Your task to perform on an android device: Is it going to rain today? Image 0: 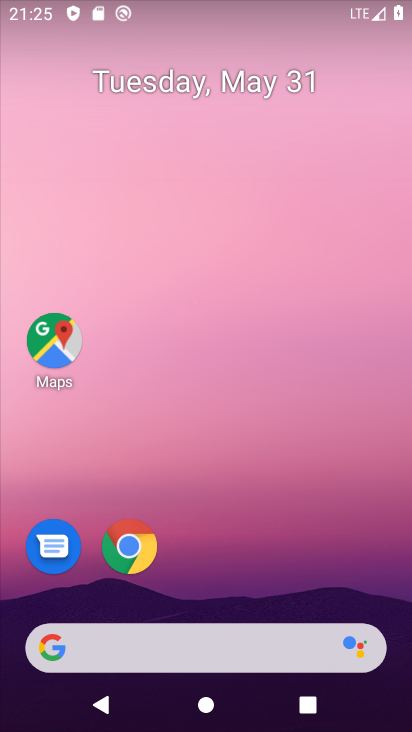
Step 0: drag from (4, 288) to (399, 269)
Your task to perform on an android device: Is it going to rain today? Image 1: 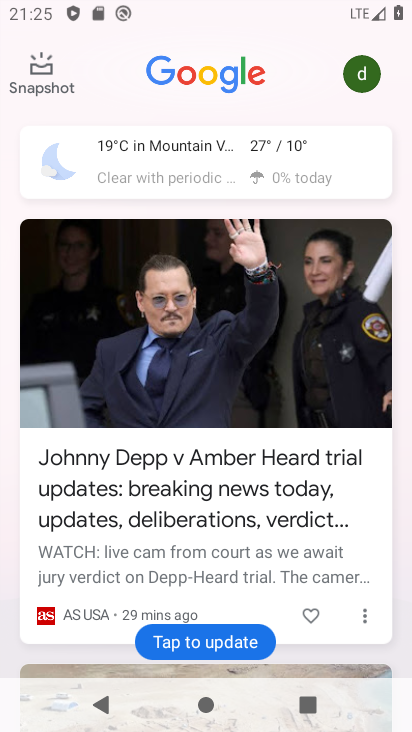
Step 1: click (271, 143)
Your task to perform on an android device: Is it going to rain today? Image 2: 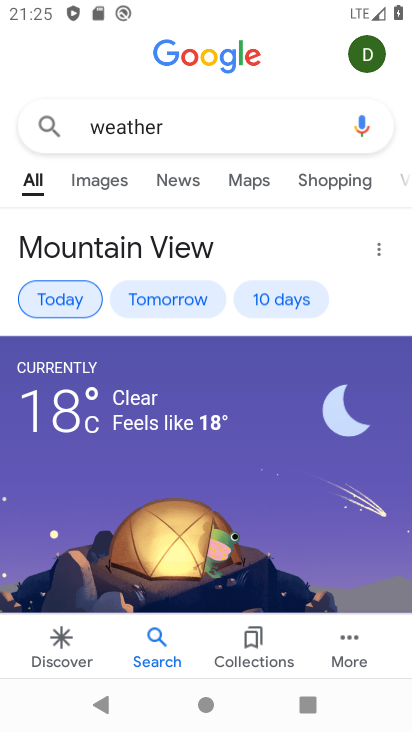
Step 2: click (75, 299)
Your task to perform on an android device: Is it going to rain today? Image 3: 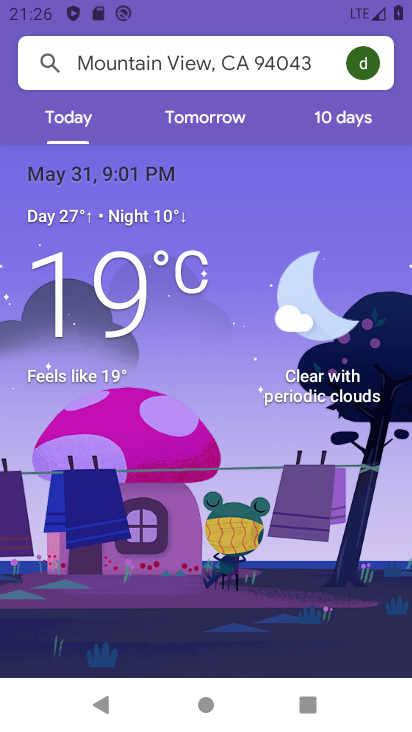
Step 3: task complete